Your task to perform on an android device: change the clock display to show seconds Image 0: 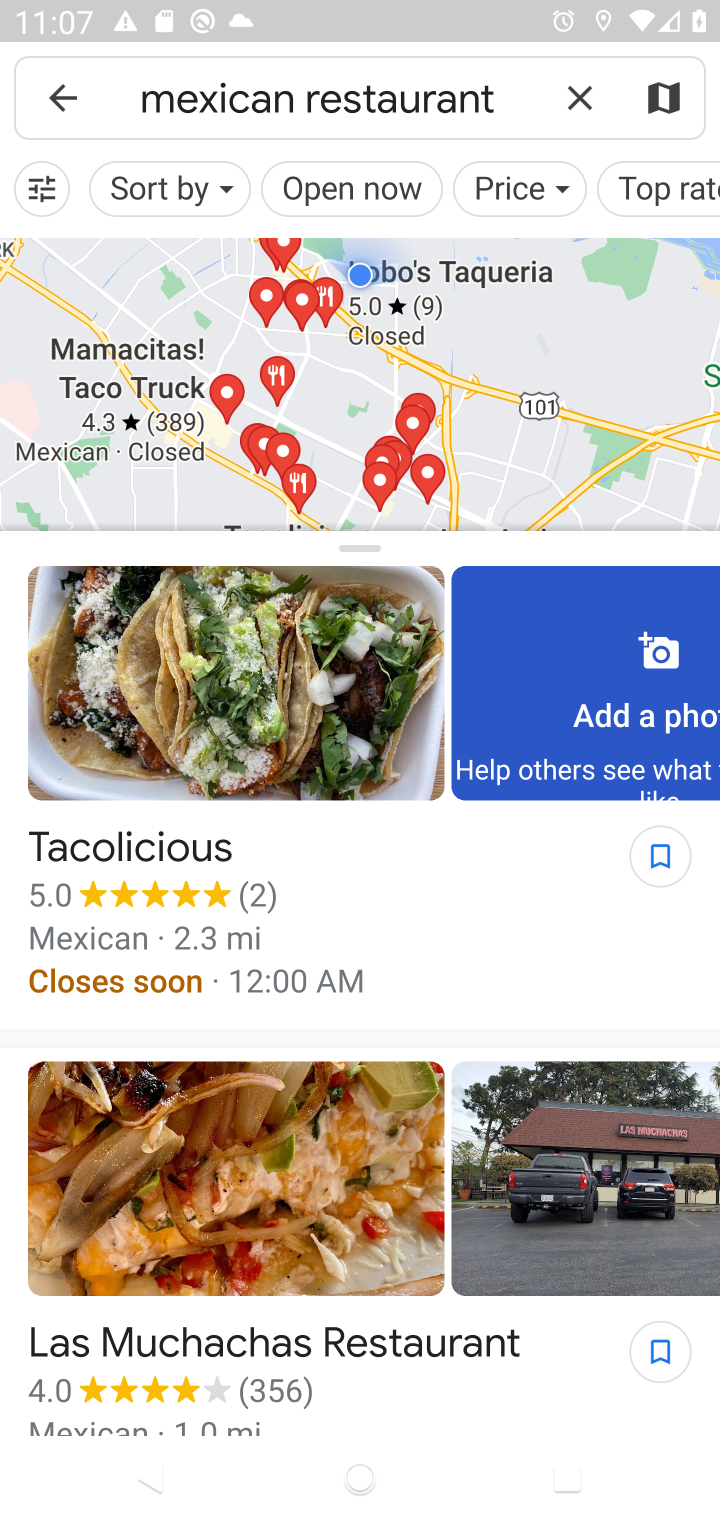
Step 0: press home button
Your task to perform on an android device: change the clock display to show seconds Image 1: 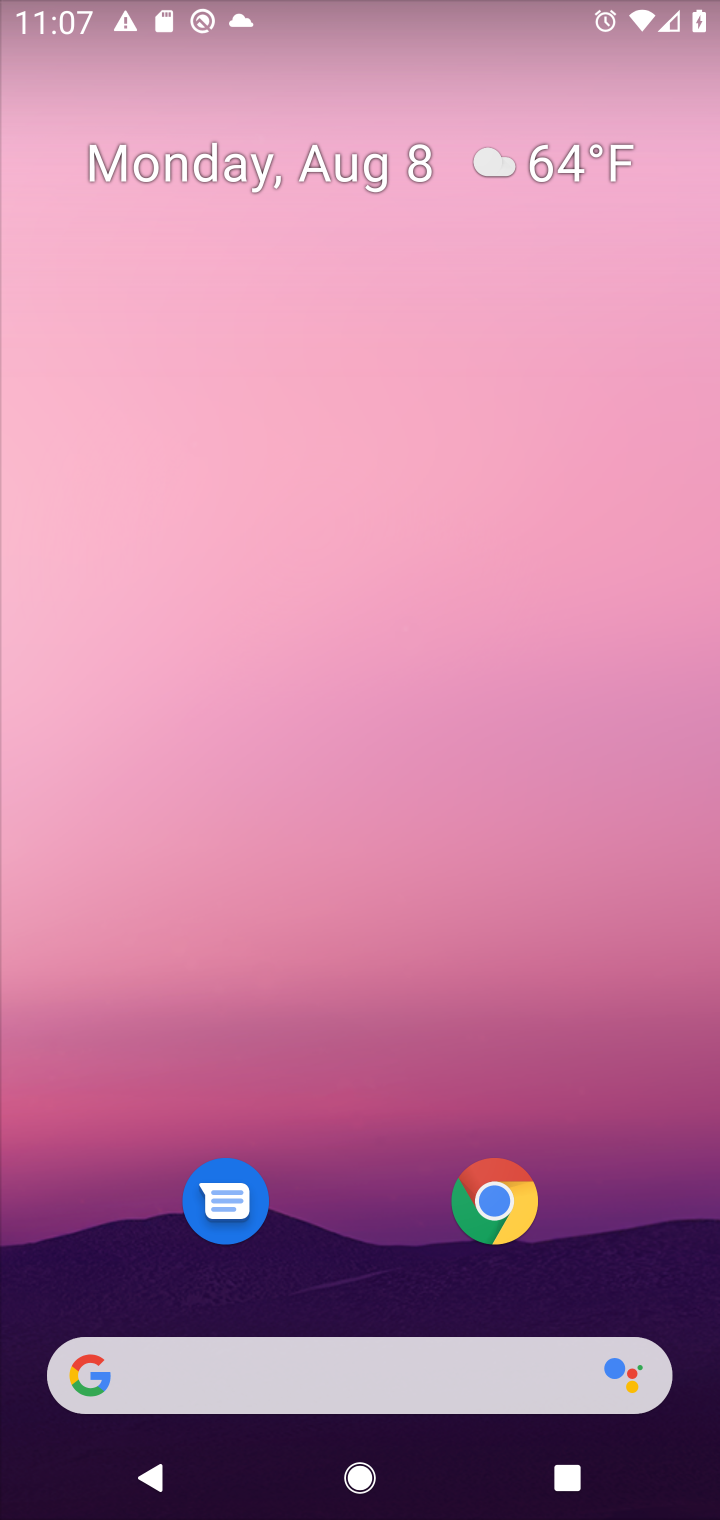
Step 1: drag from (613, 1274) to (628, 232)
Your task to perform on an android device: change the clock display to show seconds Image 2: 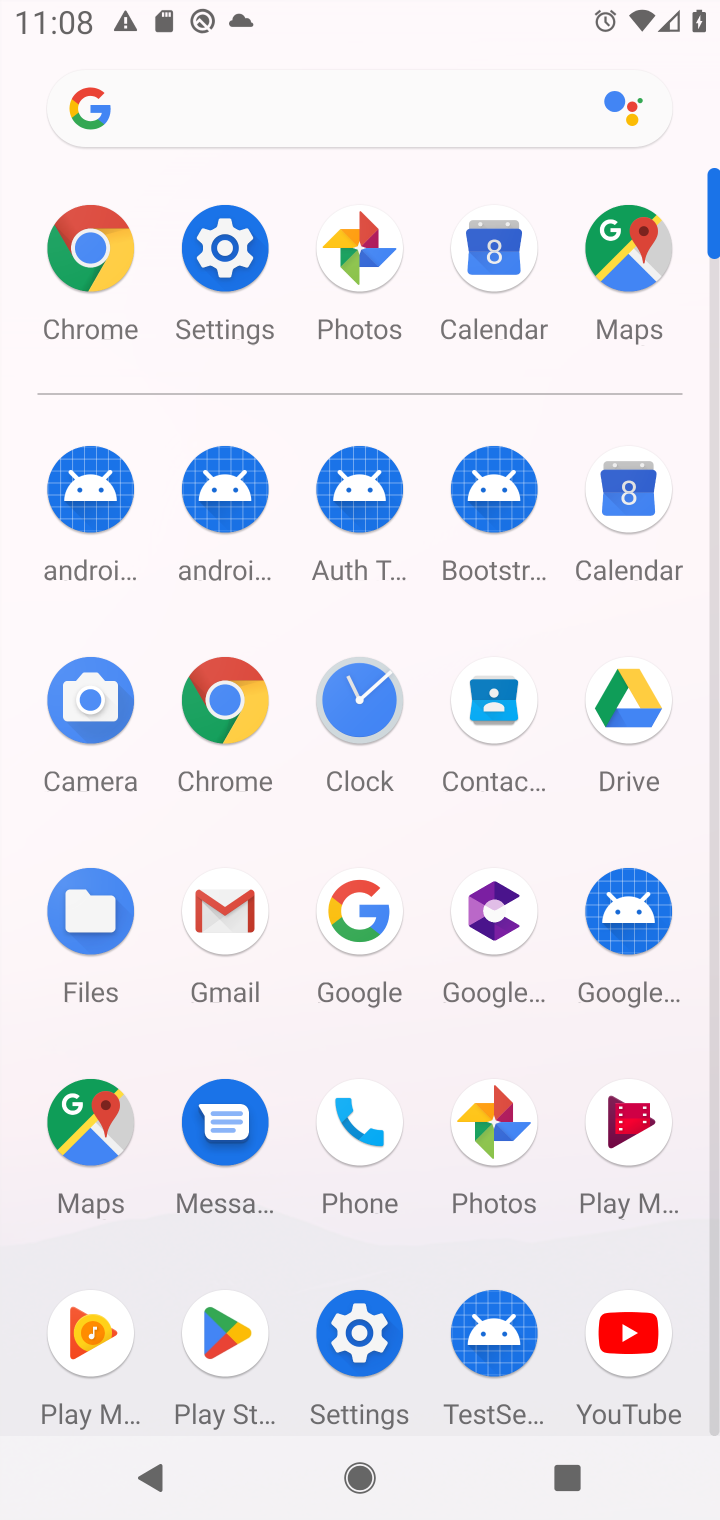
Step 2: click (359, 708)
Your task to perform on an android device: change the clock display to show seconds Image 3: 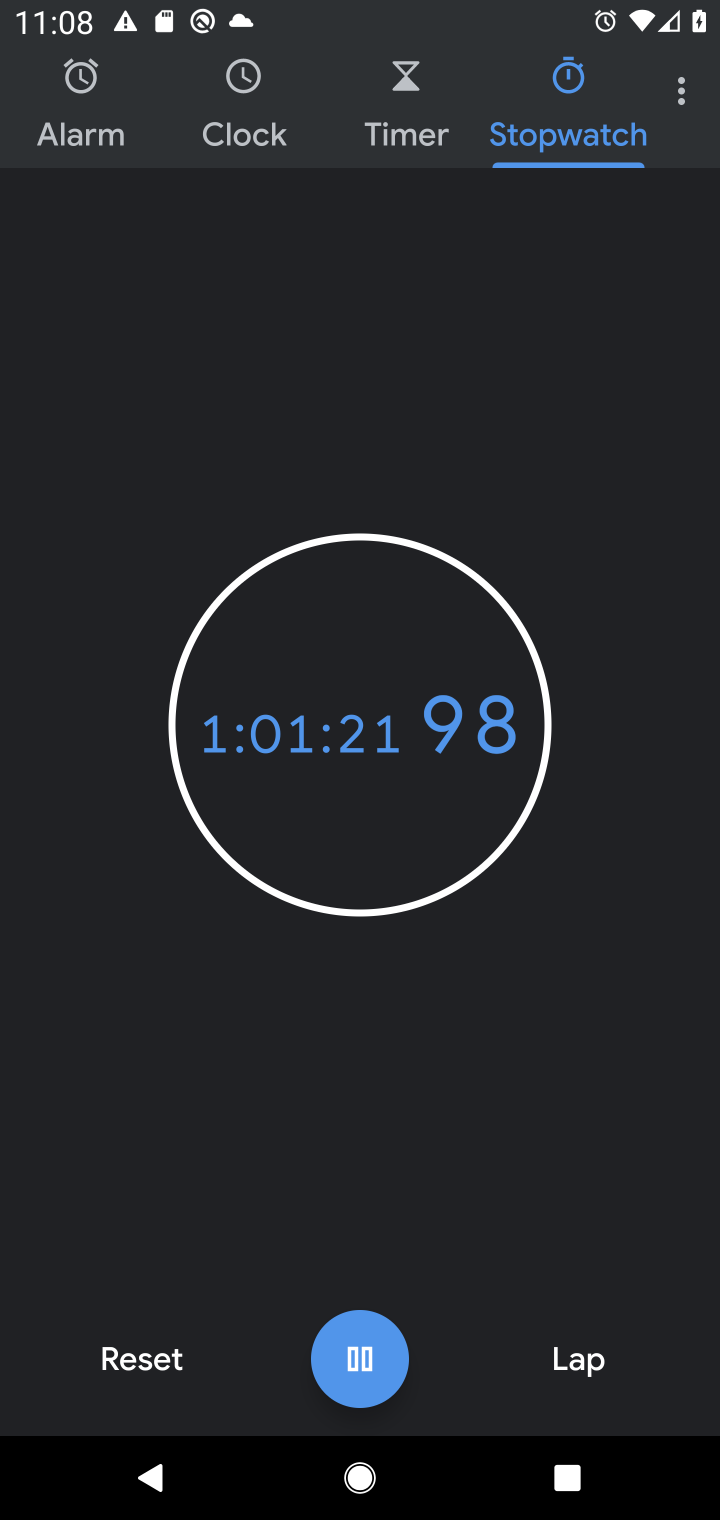
Step 3: click (689, 95)
Your task to perform on an android device: change the clock display to show seconds Image 4: 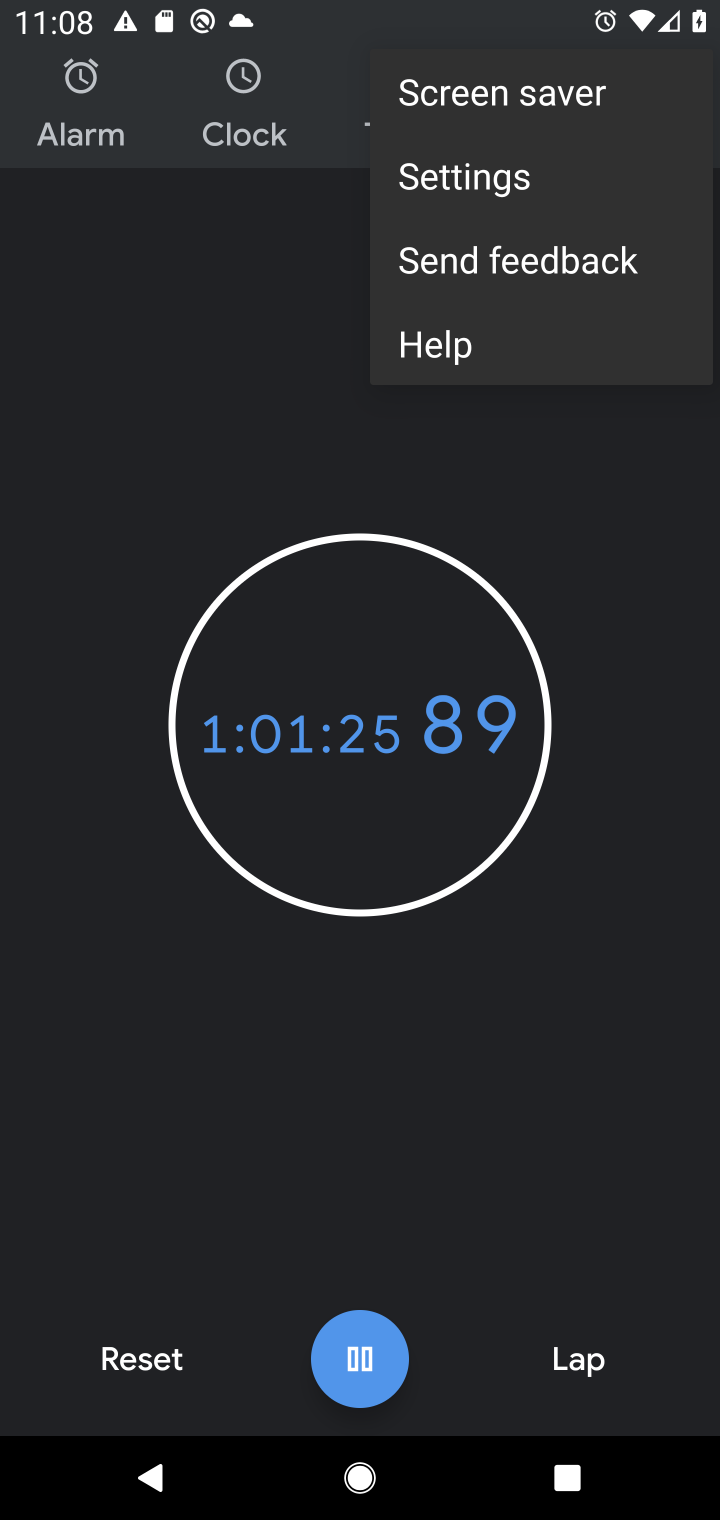
Step 4: click (493, 188)
Your task to perform on an android device: change the clock display to show seconds Image 5: 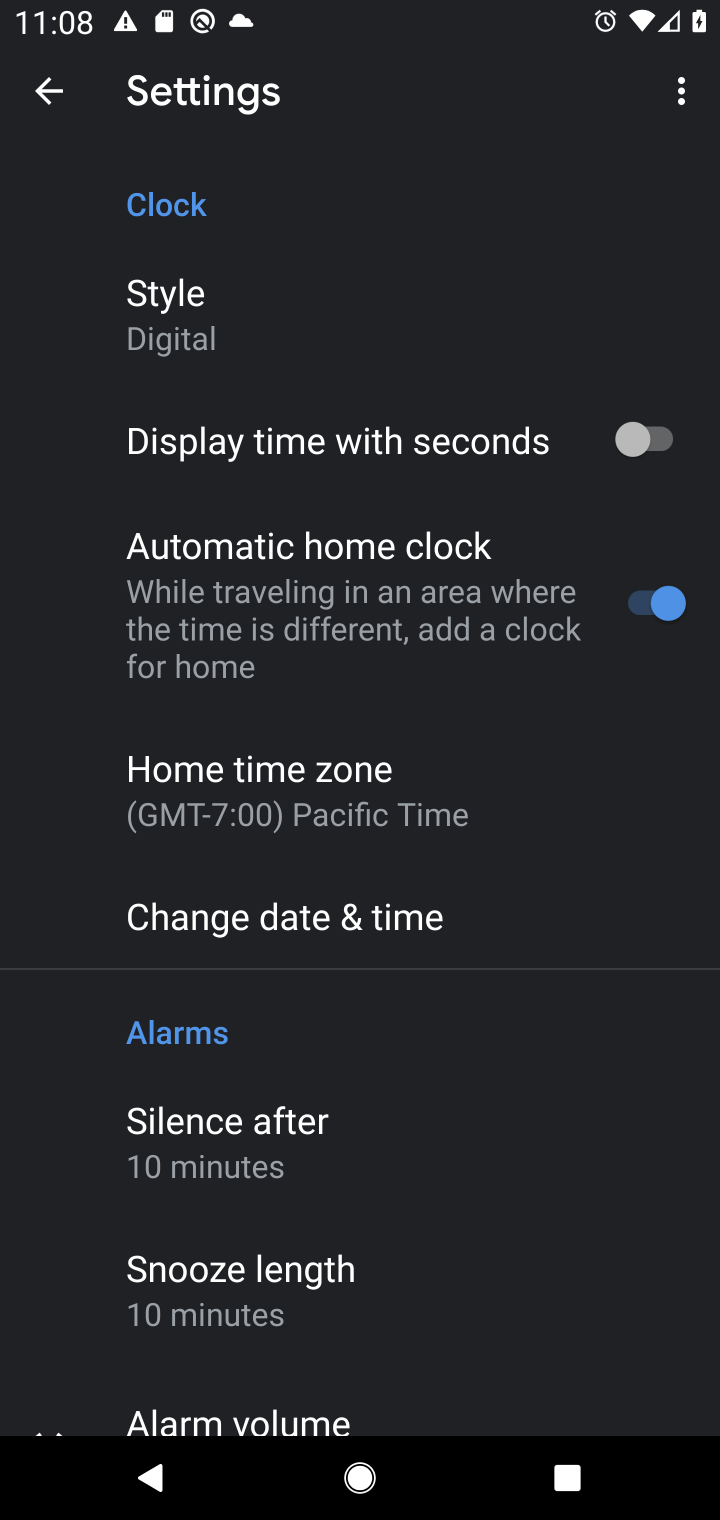
Step 5: click (652, 425)
Your task to perform on an android device: change the clock display to show seconds Image 6: 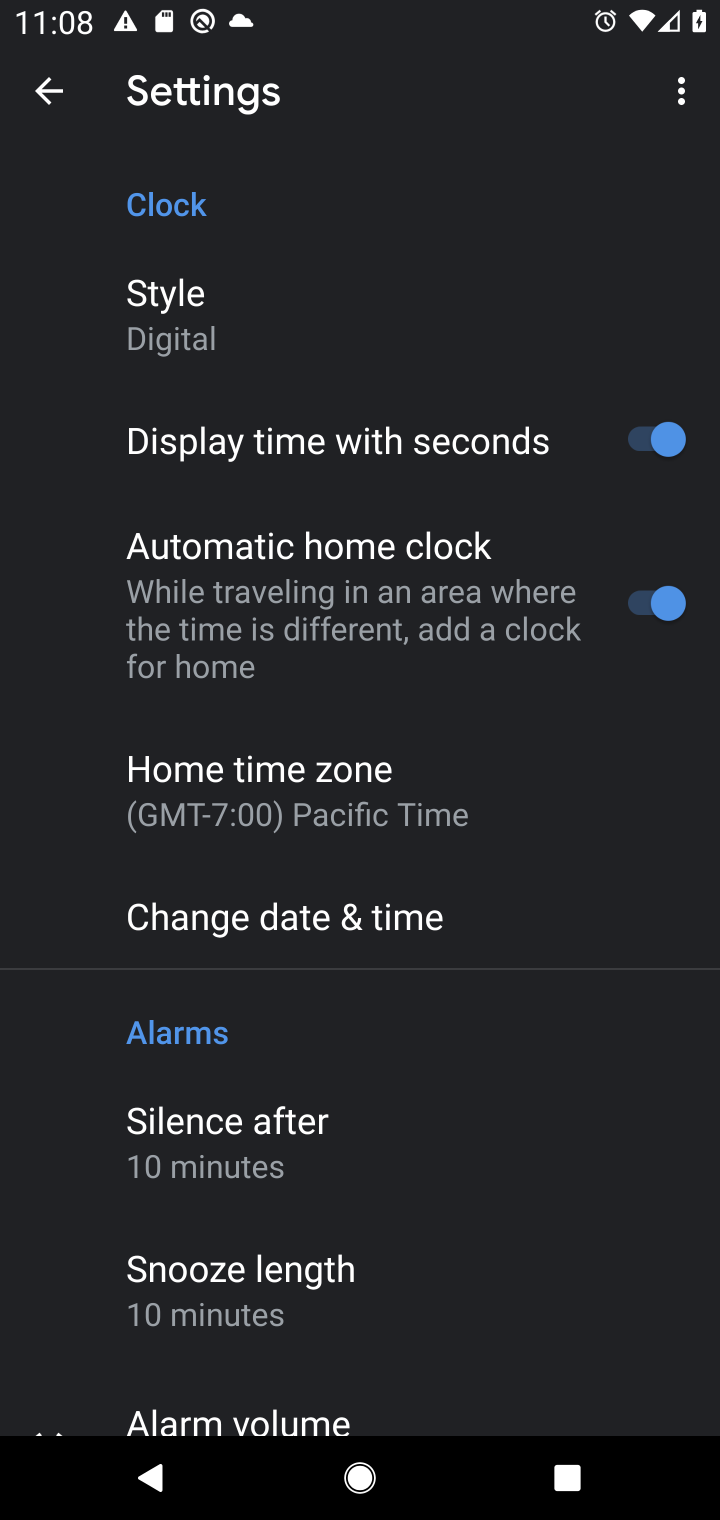
Step 6: task complete